Your task to perform on an android device: check data usage Image 0: 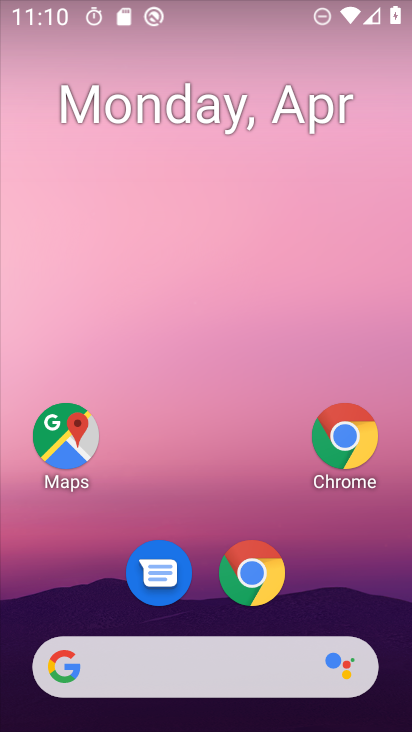
Step 0: drag from (270, 485) to (246, 30)
Your task to perform on an android device: check data usage Image 1: 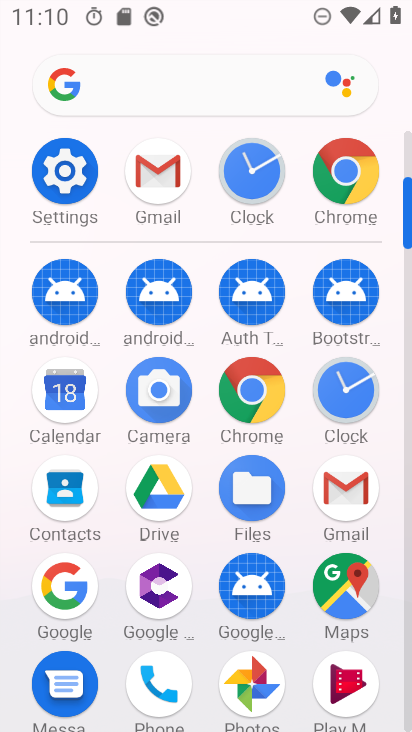
Step 1: click (65, 179)
Your task to perform on an android device: check data usage Image 2: 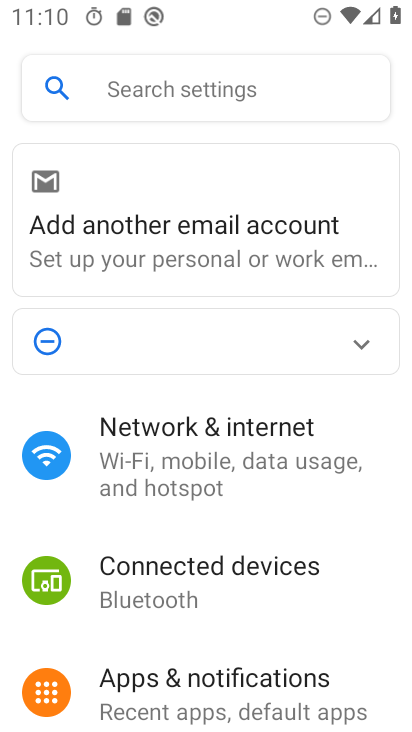
Step 2: click (231, 435)
Your task to perform on an android device: check data usage Image 3: 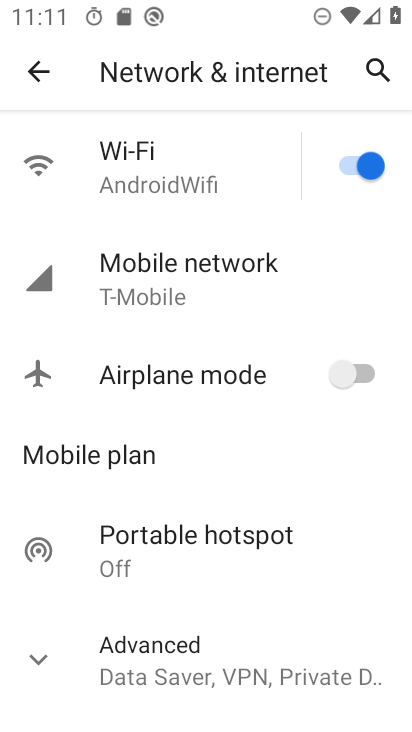
Step 3: drag from (254, 375) to (298, 564)
Your task to perform on an android device: check data usage Image 4: 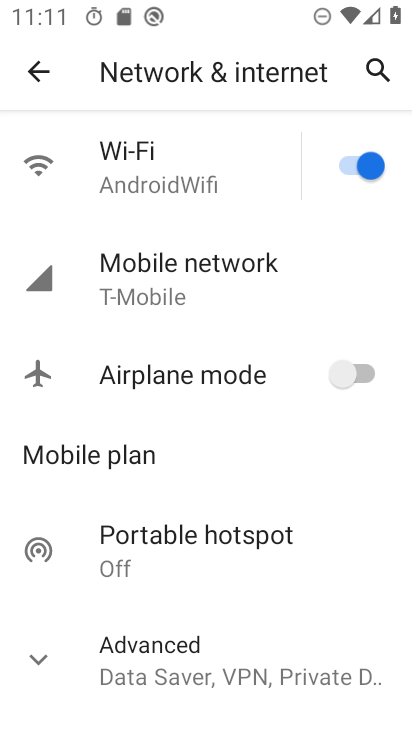
Step 4: click (184, 281)
Your task to perform on an android device: check data usage Image 5: 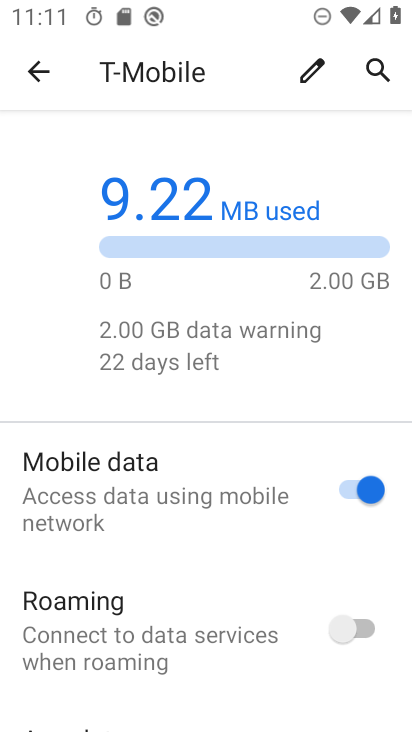
Step 5: click (182, 248)
Your task to perform on an android device: check data usage Image 6: 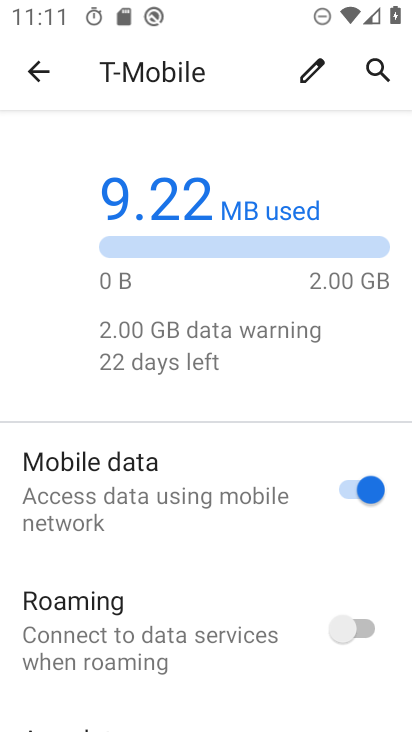
Step 6: task complete